Your task to perform on an android device: Go to eBay Image 0: 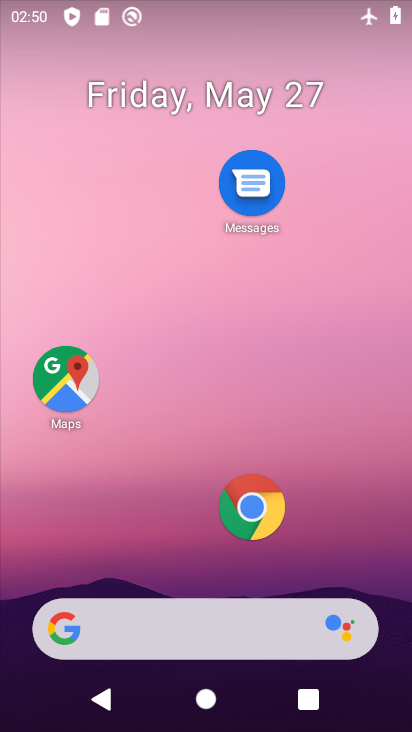
Step 0: click (245, 517)
Your task to perform on an android device: Go to eBay Image 1: 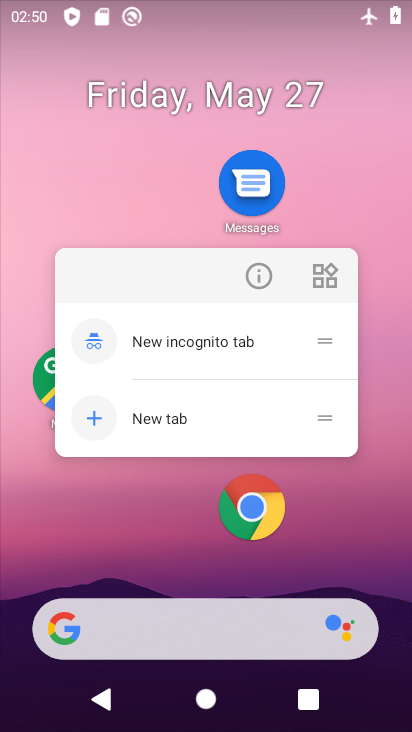
Step 1: drag from (227, 556) to (237, 219)
Your task to perform on an android device: Go to eBay Image 2: 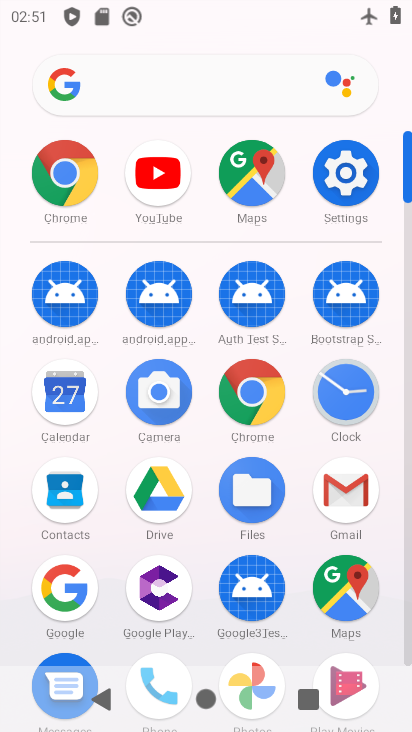
Step 2: click (245, 395)
Your task to perform on an android device: Go to eBay Image 3: 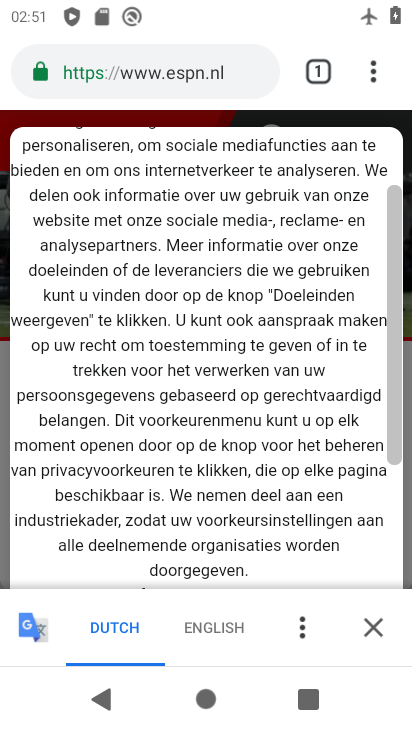
Step 3: click (312, 85)
Your task to perform on an android device: Go to eBay Image 4: 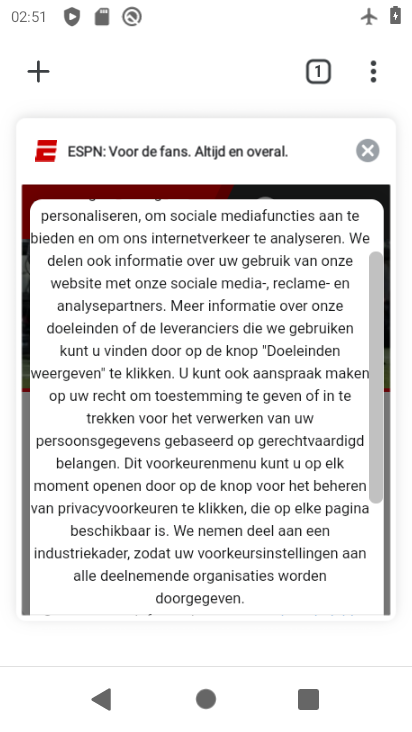
Step 4: click (39, 81)
Your task to perform on an android device: Go to eBay Image 5: 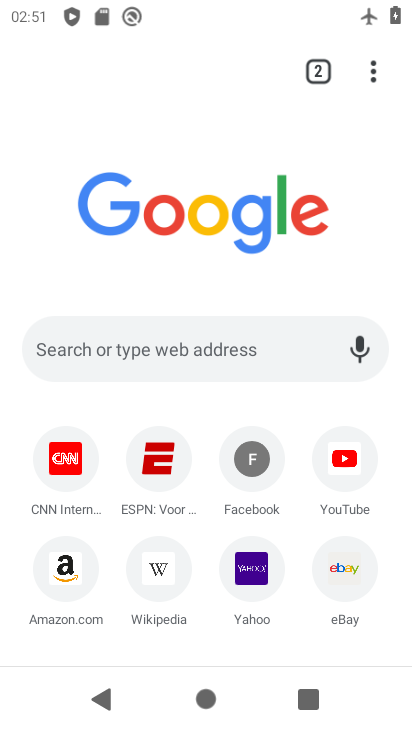
Step 5: click (339, 589)
Your task to perform on an android device: Go to eBay Image 6: 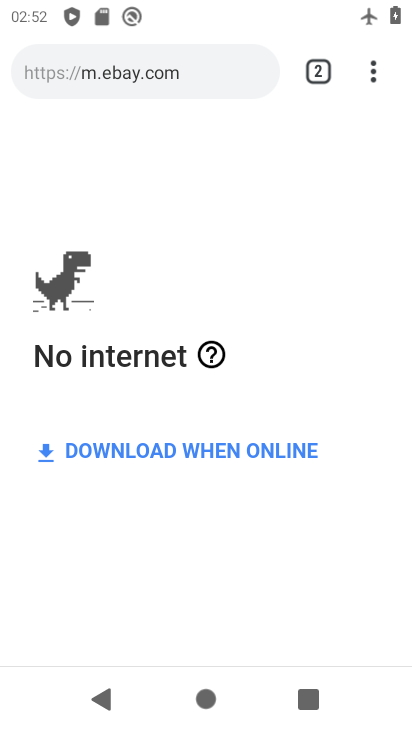
Step 6: drag from (196, 561) to (285, 190)
Your task to perform on an android device: Go to eBay Image 7: 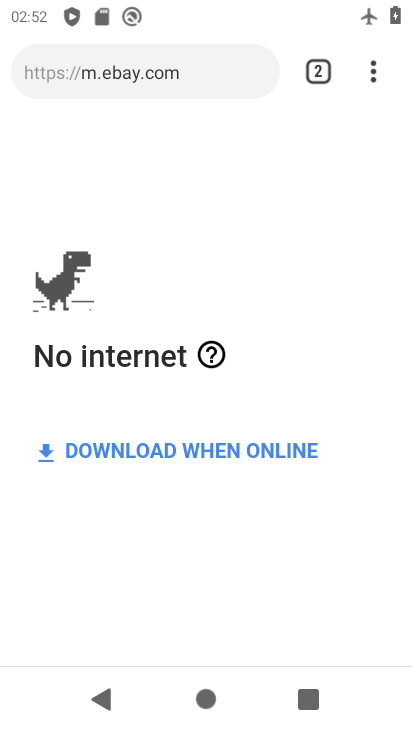
Step 7: click (228, 11)
Your task to perform on an android device: Go to eBay Image 8: 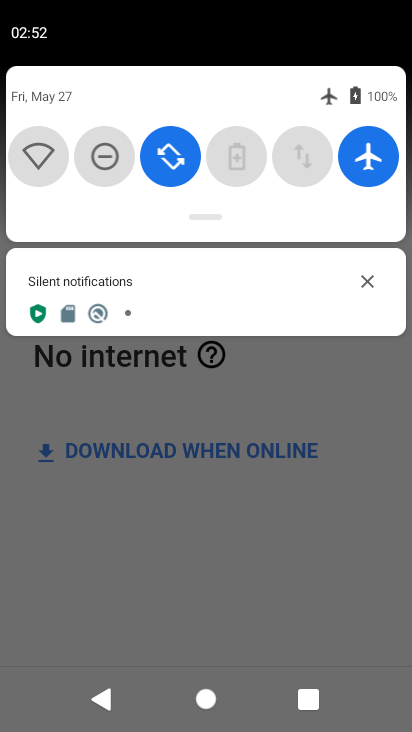
Step 8: task complete